Your task to perform on an android device: show emergency info Image 0: 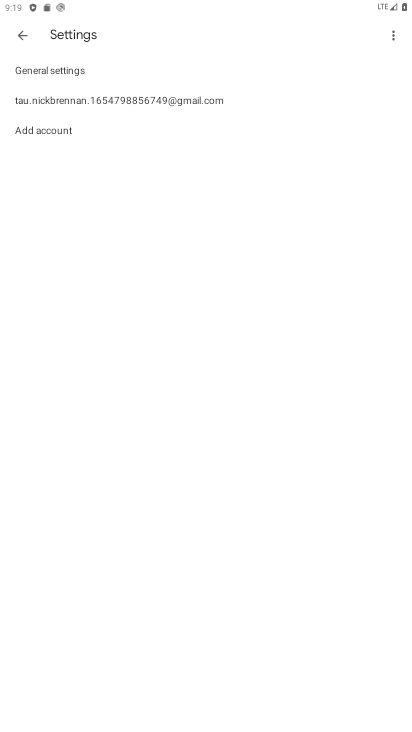
Step 0: press home button
Your task to perform on an android device: show emergency info Image 1: 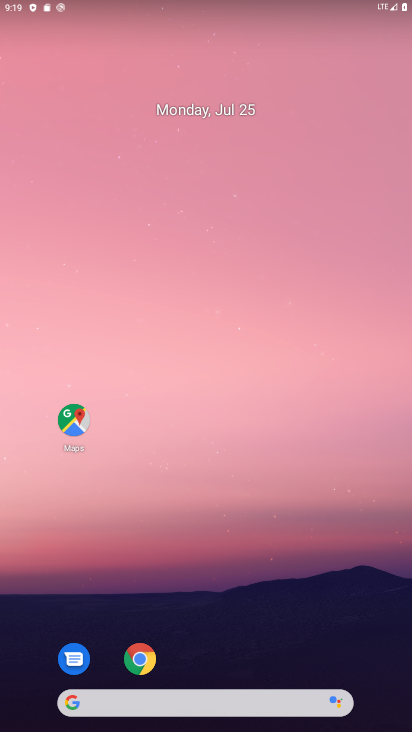
Step 1: drag from (216, 608) to (114, 4)
Your task to perform on an android device: show emergency info Image 2: 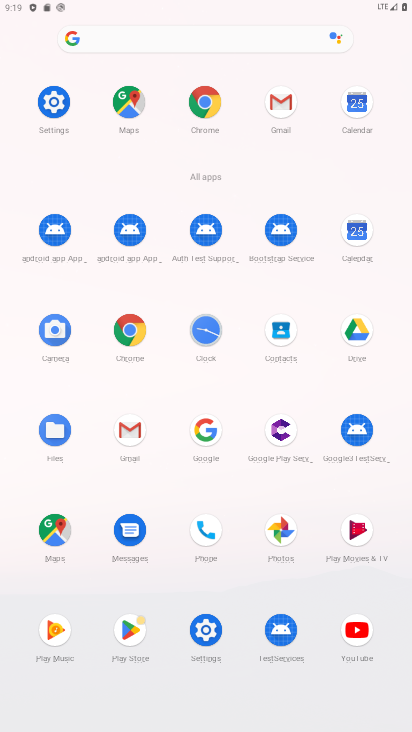
Step 2: click (206, 641)
Your task to perform on an android device: show emergency info Image 3: 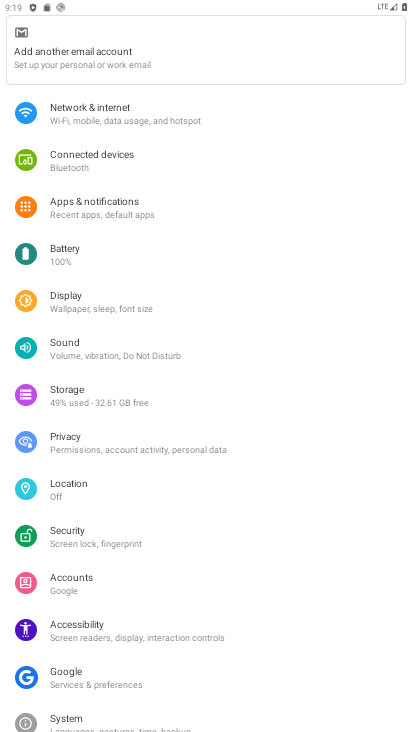
Step 3: drag from (114, 652) to (127, 181)
Your task to perform on an android device: show emergency info Image 4: 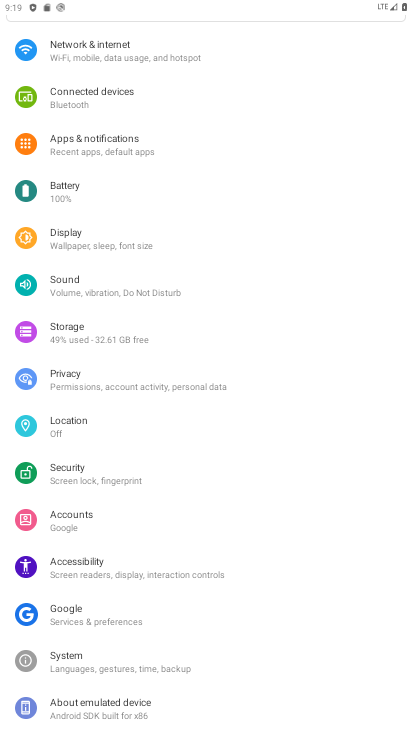
Step 4: click (89, 709)
Your task to perform on an android device: show emergency info Image 5: 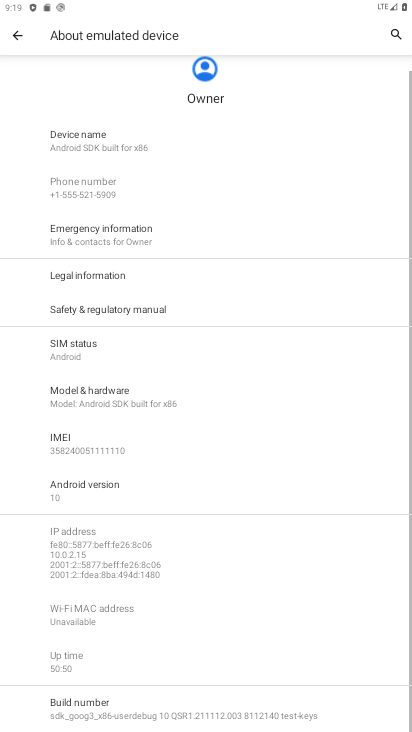
Step 5: click (94, 232)
Your task to perform on an android device: show emergency info Image 6: 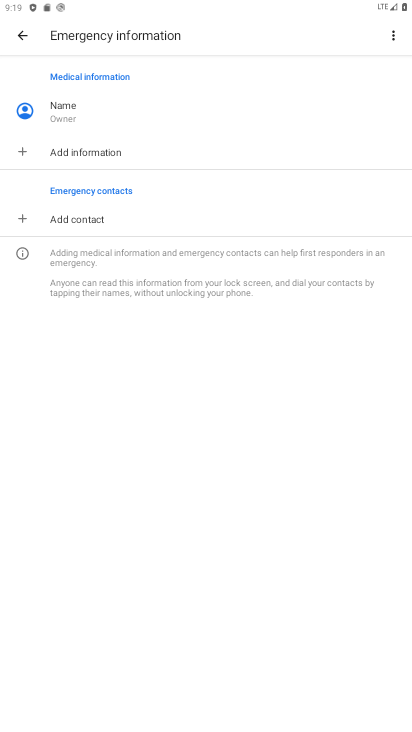
Step 6: task complete